Your task to perform on an android device: toggle pop-ups in chrome Image 0: 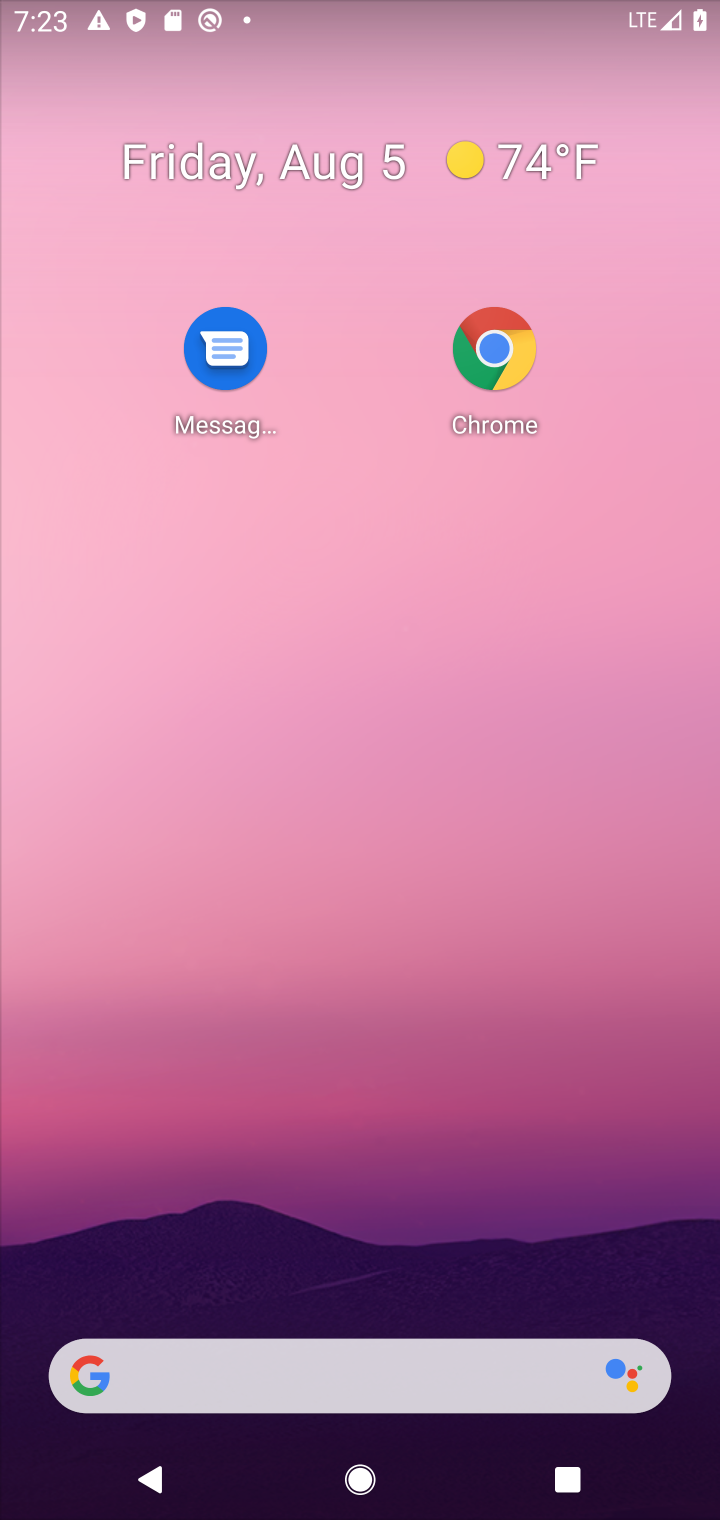
Step 0: drag from (520, 1213) to (603, 450)
Your task to perform on an android device: toggle pop-ups in chrome Image 1: 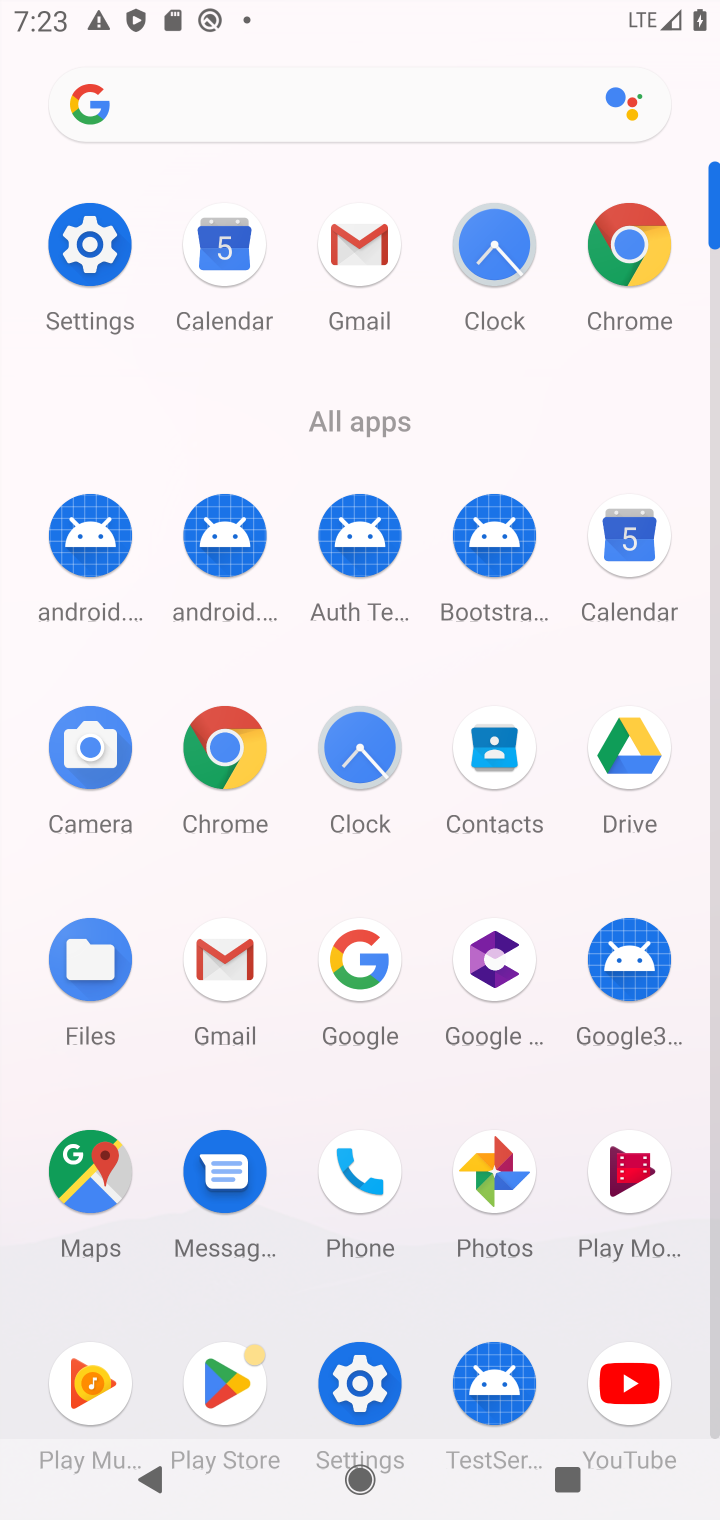
Step 1: click (649, 263)
Your task to perform on an android device: toggle pop-ups in chrome Image 2: 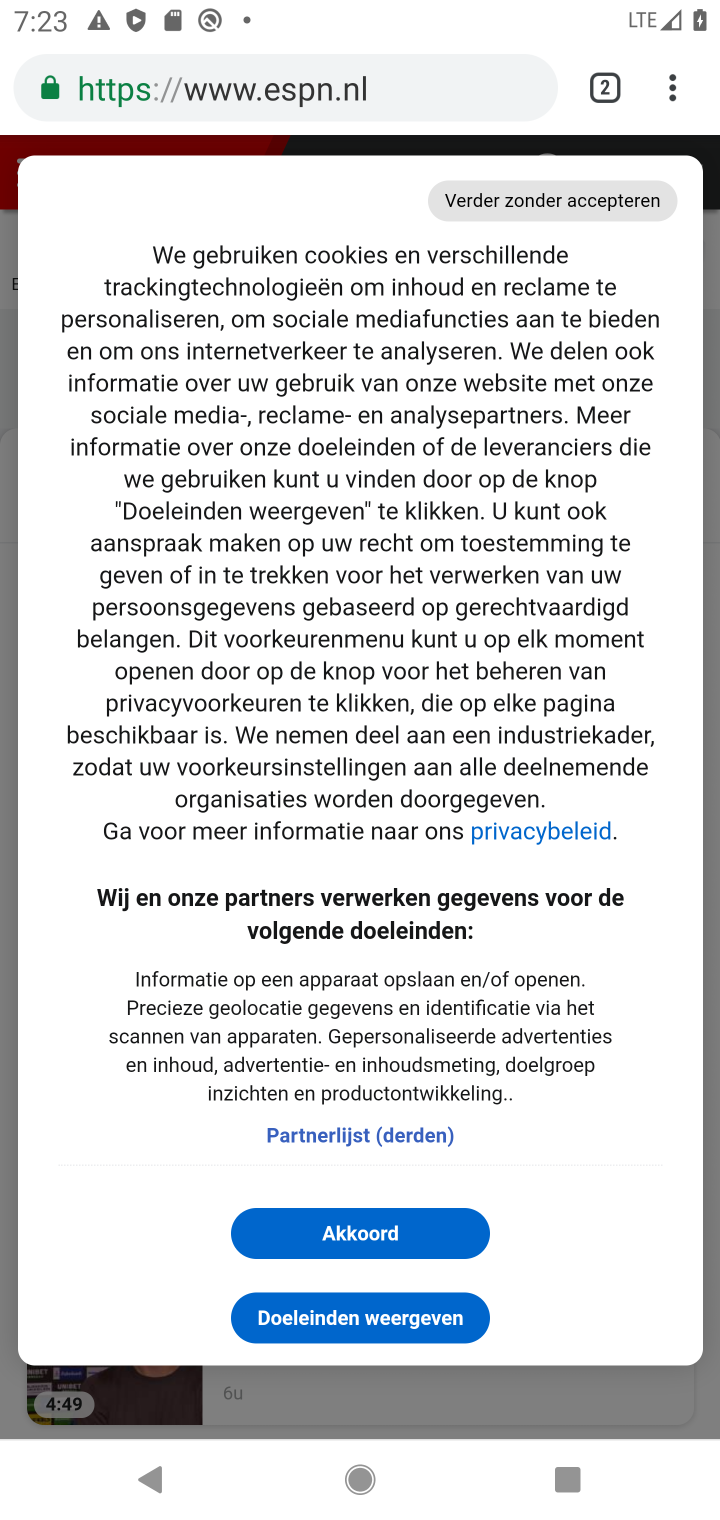
Step 2: click (374, 1246)
Your task to perform on an android device: toggle pop-ups in chrome Image 3: 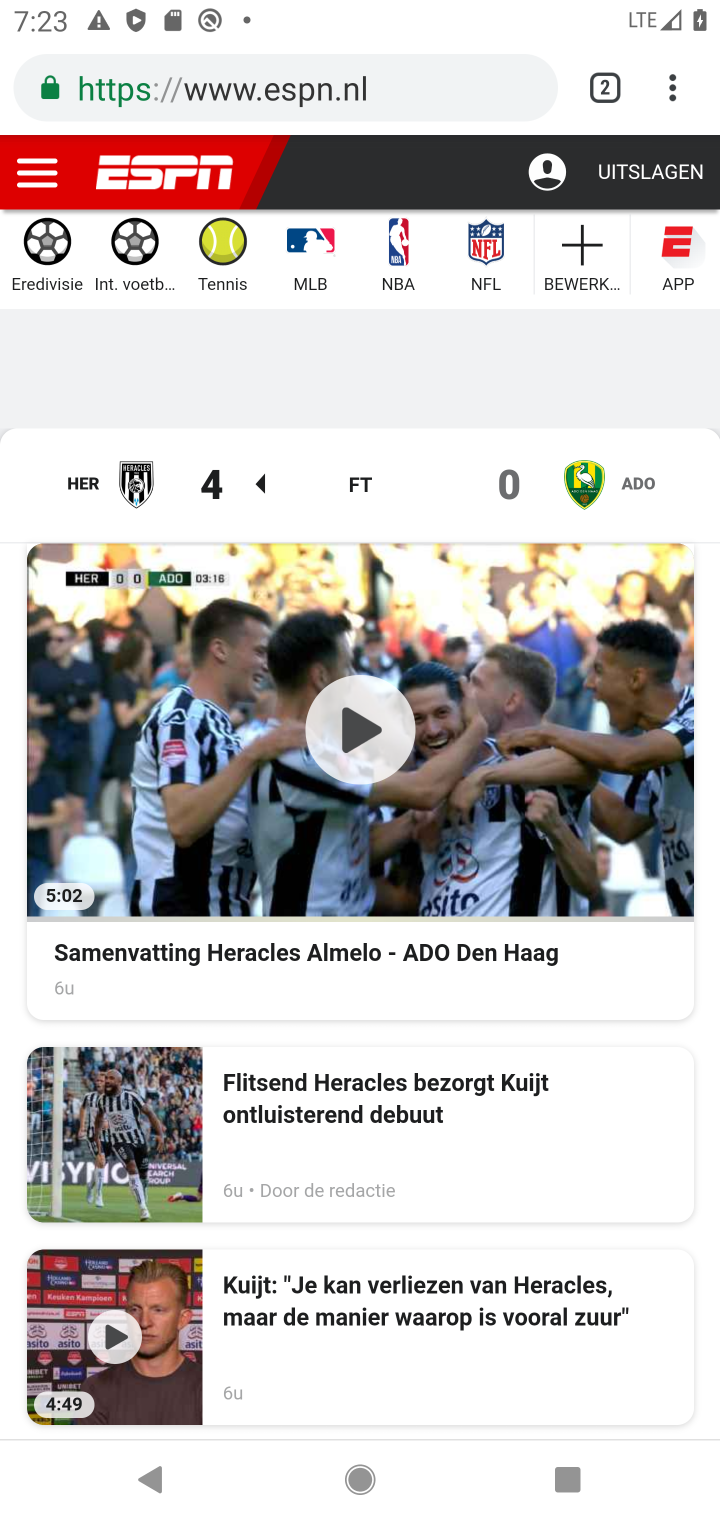
Step 3: click (661, 99)
Your task to perform on an android device: toggle pop-ups in chrome Image 4: 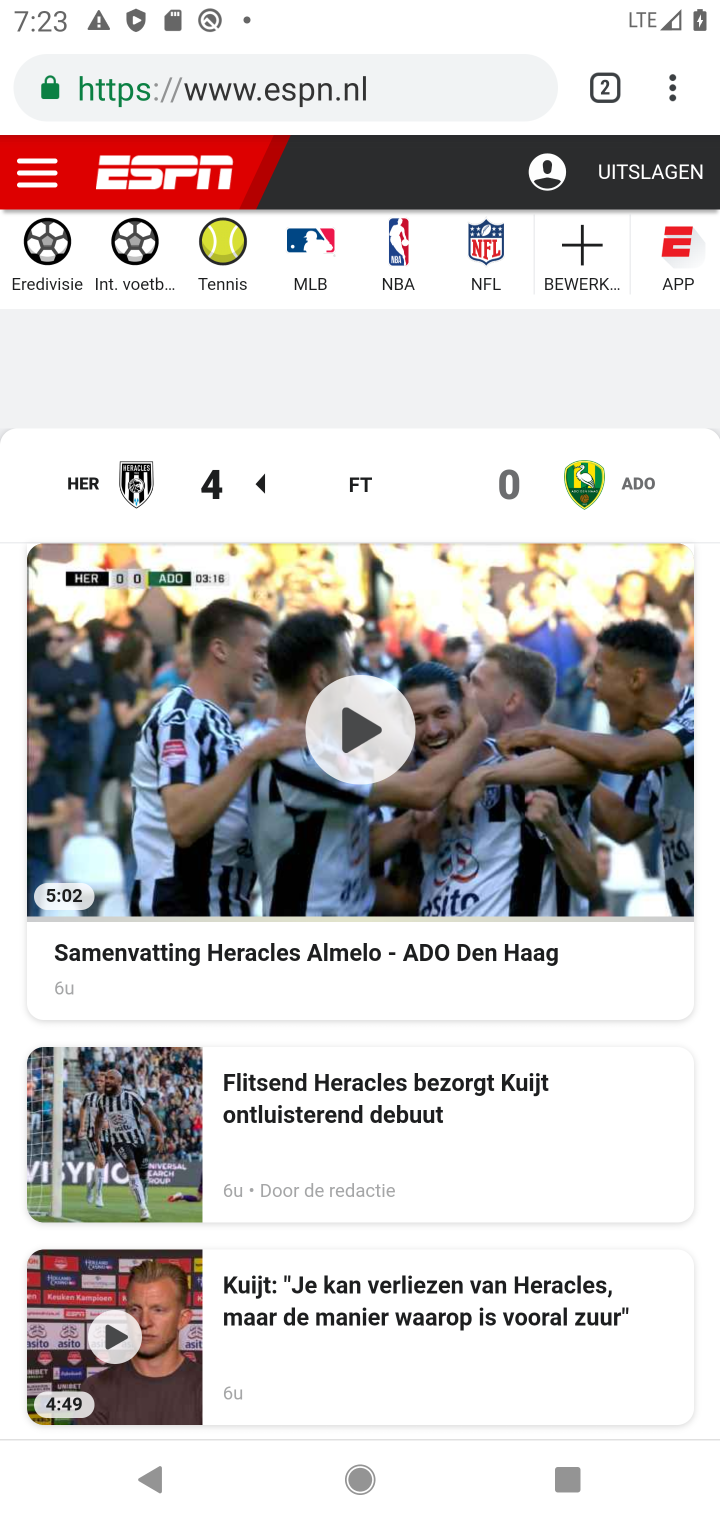
Step 4: click (673, 89)
Your task to perform on an android device: toggle pop-ups in chrome Image 5: 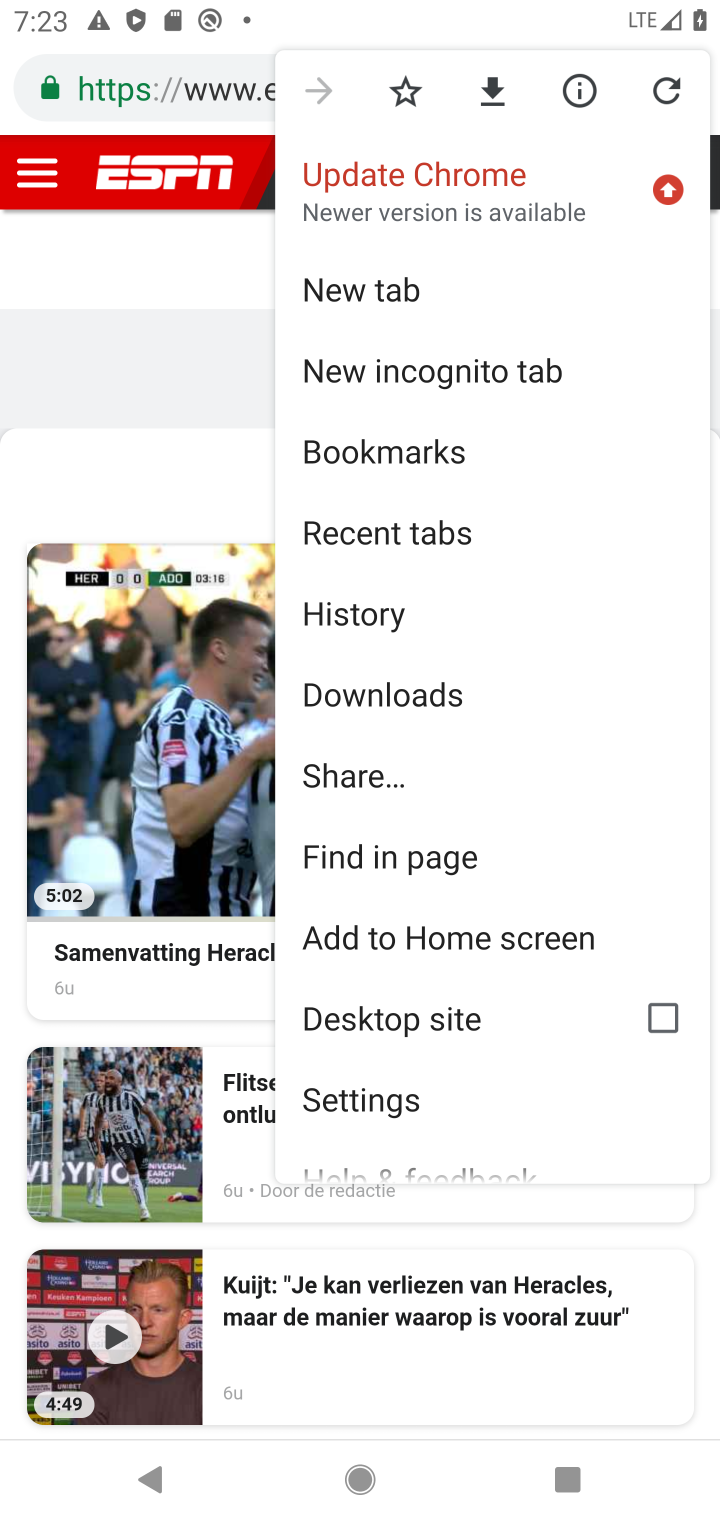
Step 5: click (377, 1100)
Your task to perform on an android device: toggle pop-ups in chrome Image 6: 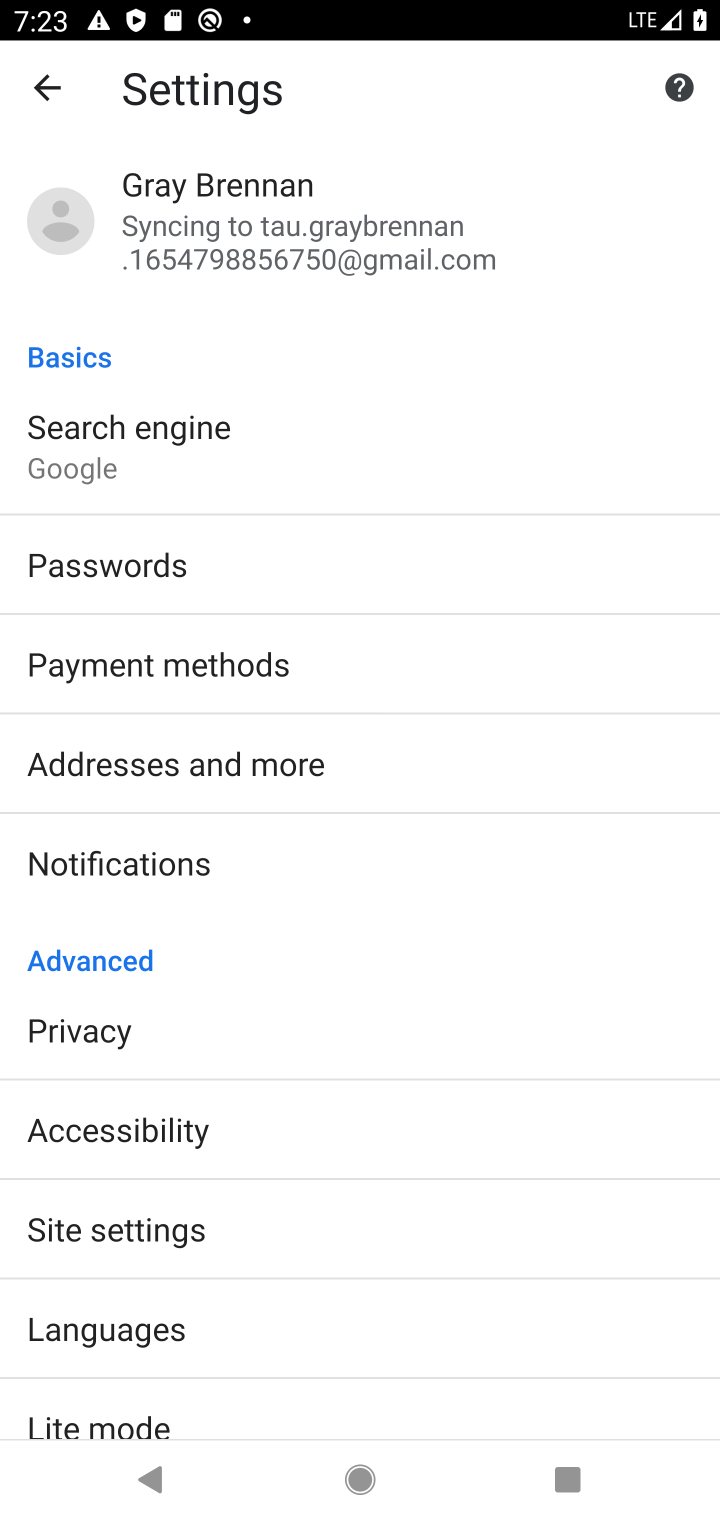
Step 6: click (186, 1234)
Your task to perform on an android device: toggle pop-ups in chrome Image 7: 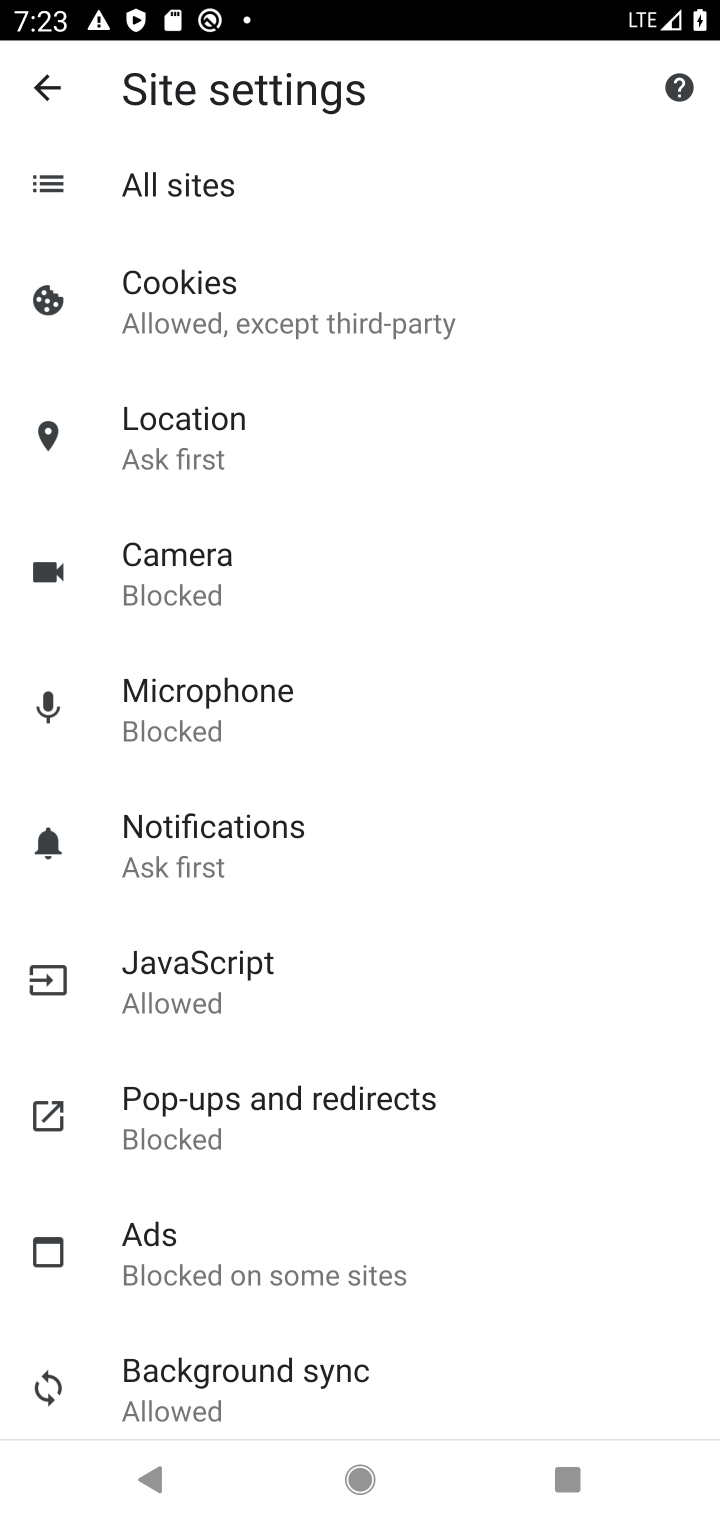
Step 7: click (293, 1133)
Your task to perform on an android device: toggle pop-ups in chrome Image 8: 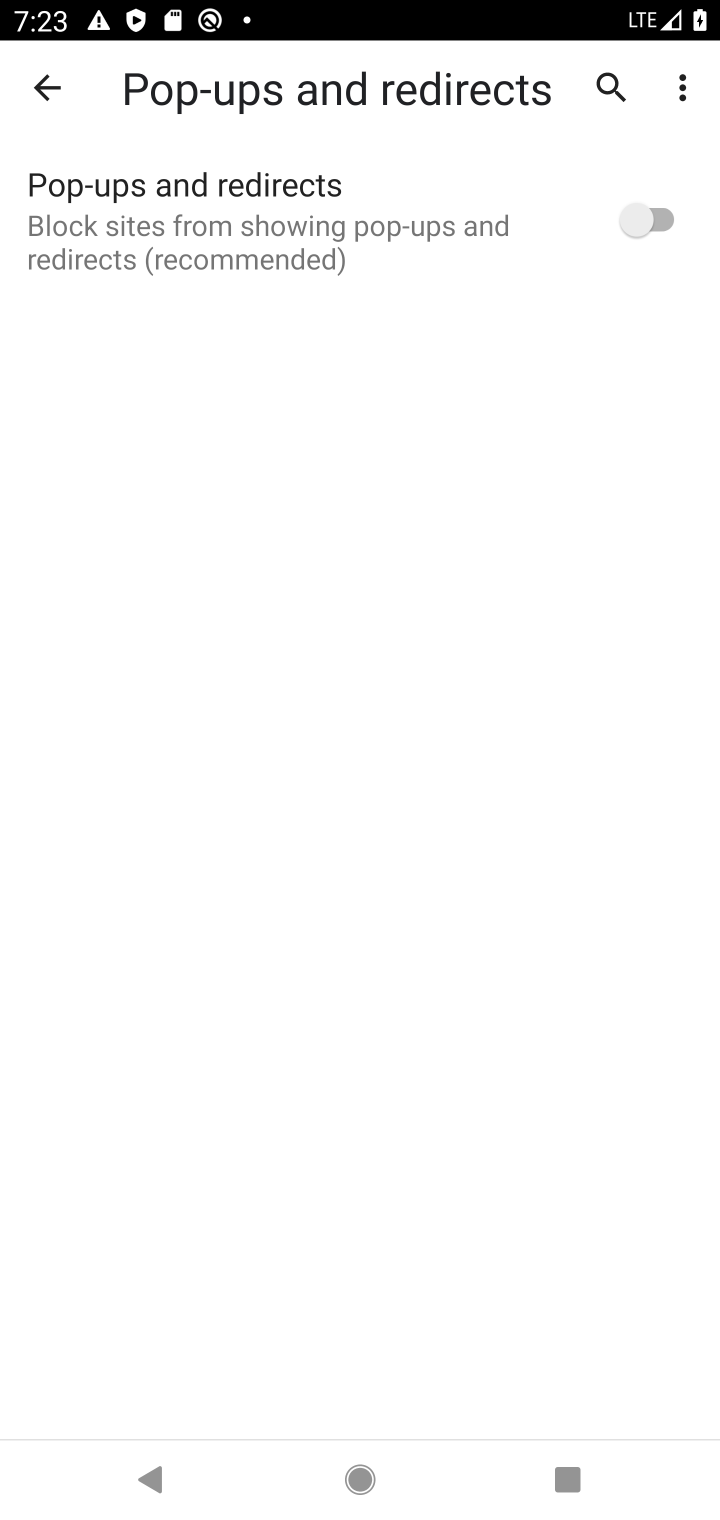
Step 8: task complete